Your task to perform on an android device: open app "Venmo" (install if not already installed) and go to login screen Image 0: 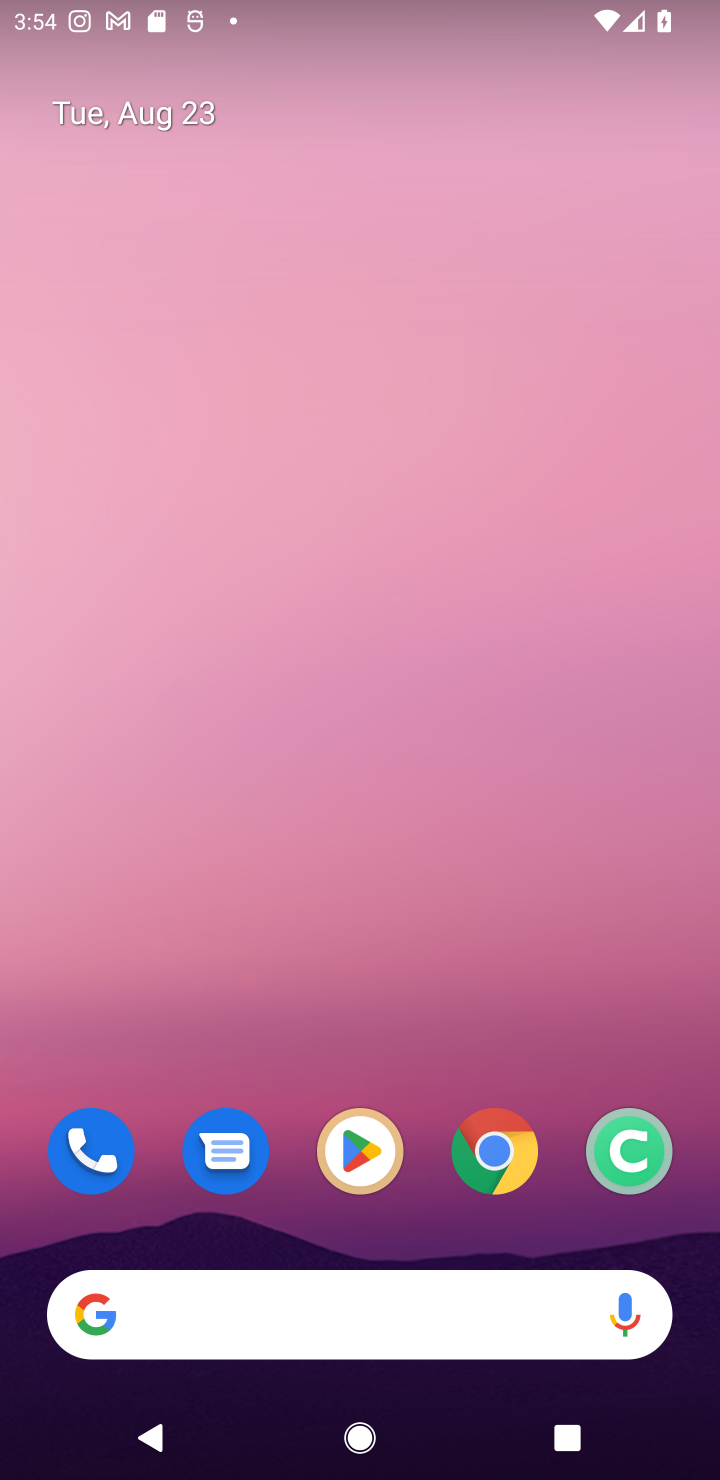
Step 0: press home button
Your task to perform on an android device: open app "Venmo" (install if not already installed) and go to login screen Image 1: 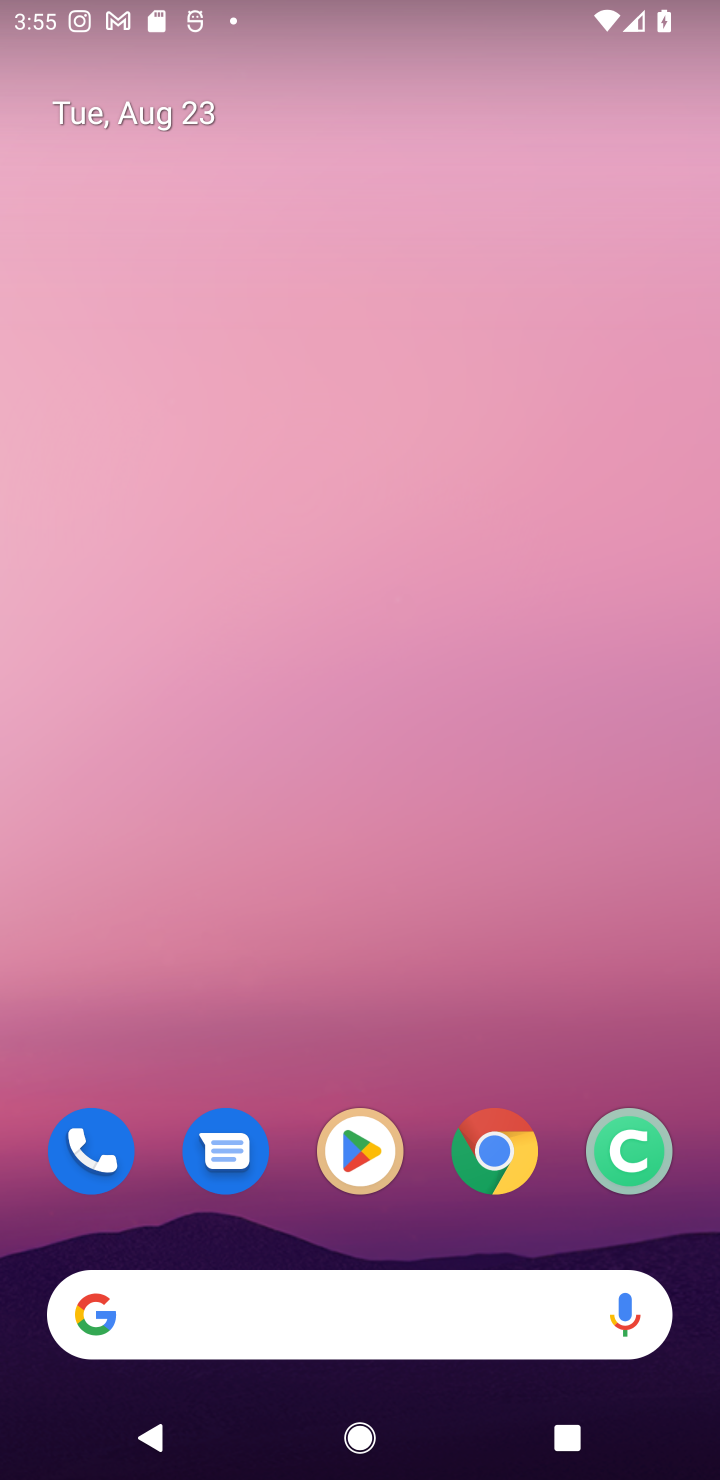
Step 1: click (354, 1163)
Your task to perform on an android device: open app "Venmo" (install if not already installed) and go to login screen Image 2: 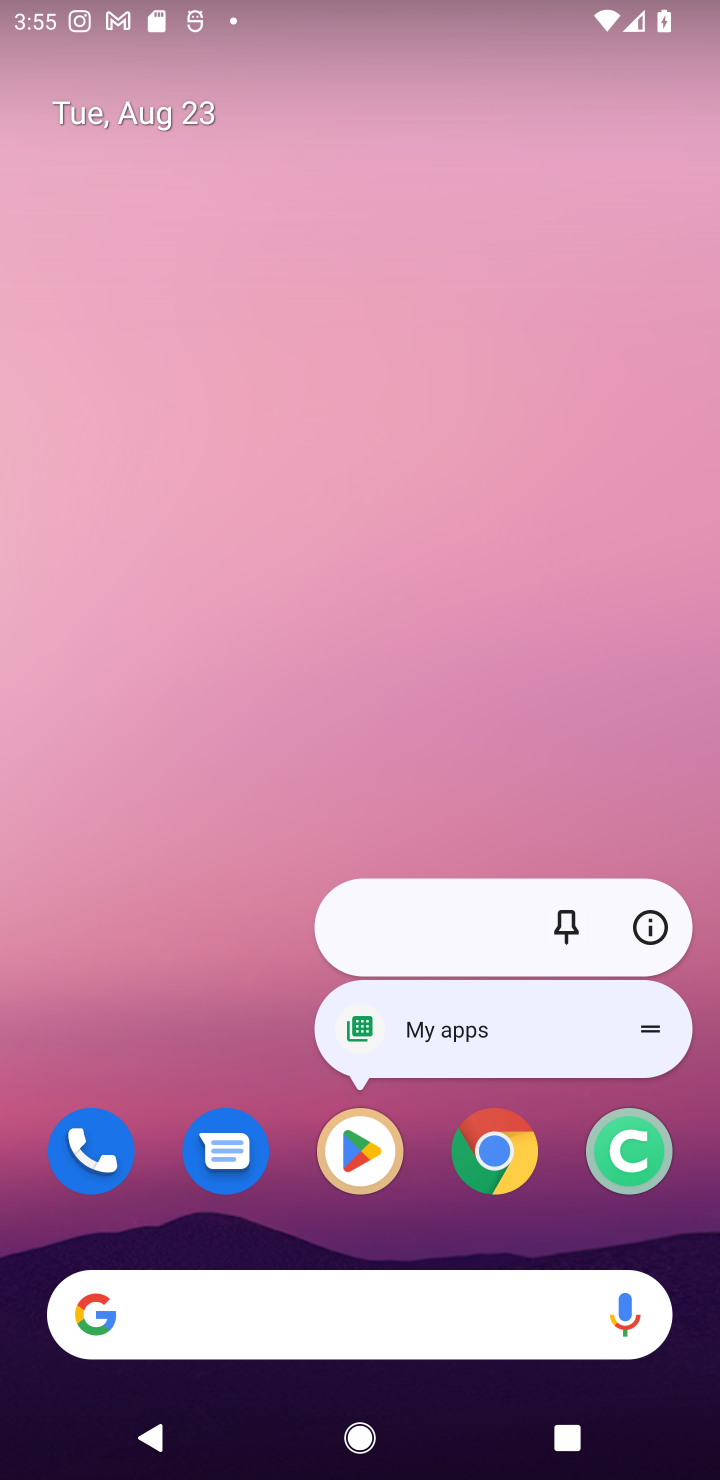
Step 2: click (354, 1170)
Your task to perform on an android device: open app "Venmo" (install if not already installed) and go to login screen Image 3: 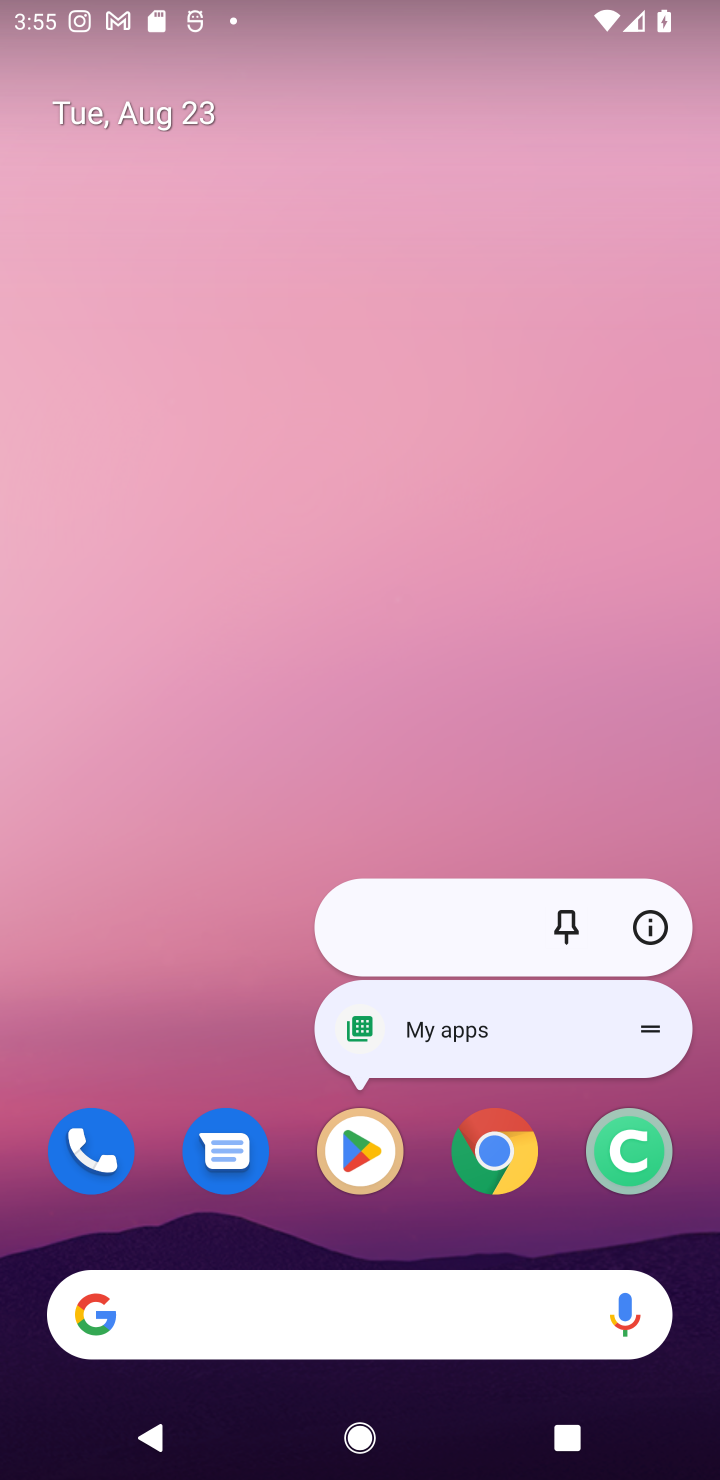
Step 3: click (356, 1153)
Your task to perform on an android device: open app "Venmo" (install if not already installed) and go to login screen Image 4: 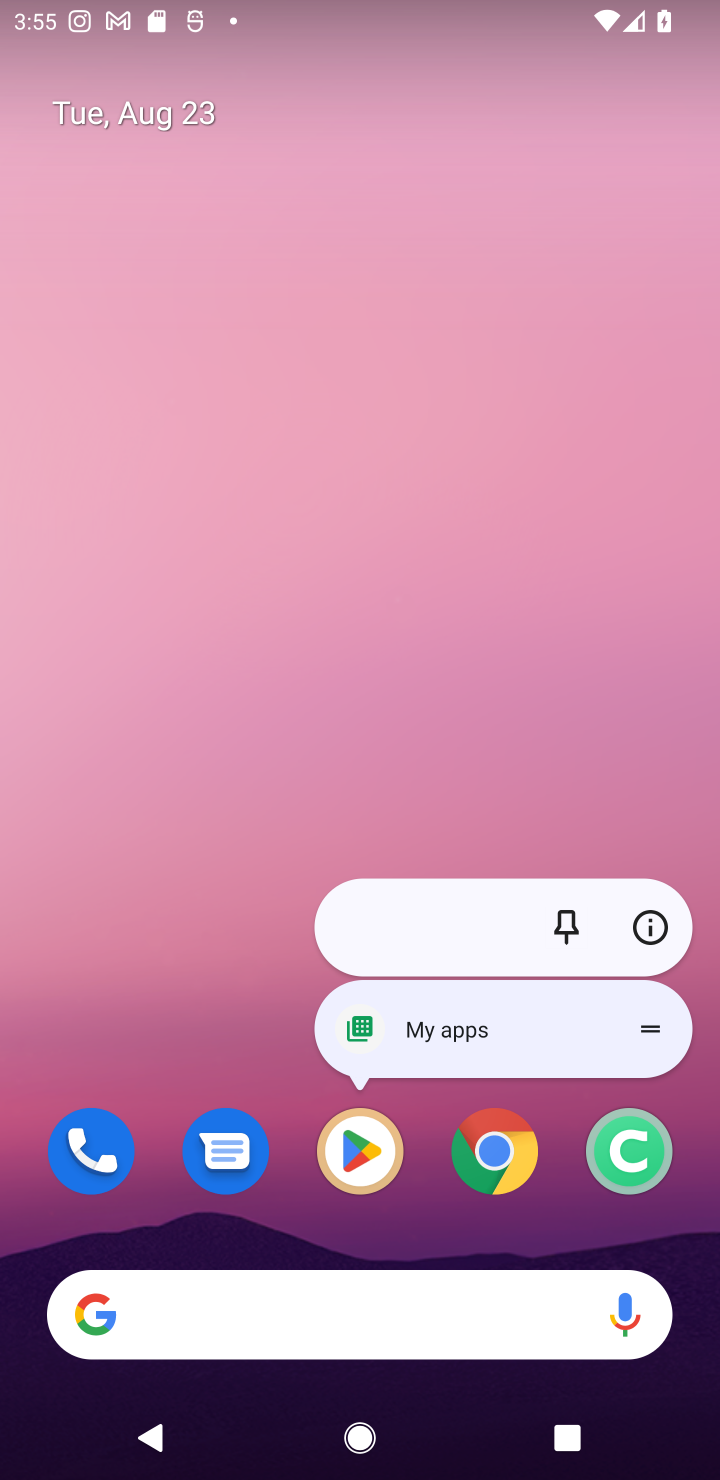
Step 4: click (356, 1157)
Your task to perform on an android device: open app "Venmo" (install if not already installed) and go to login screen Image 5: 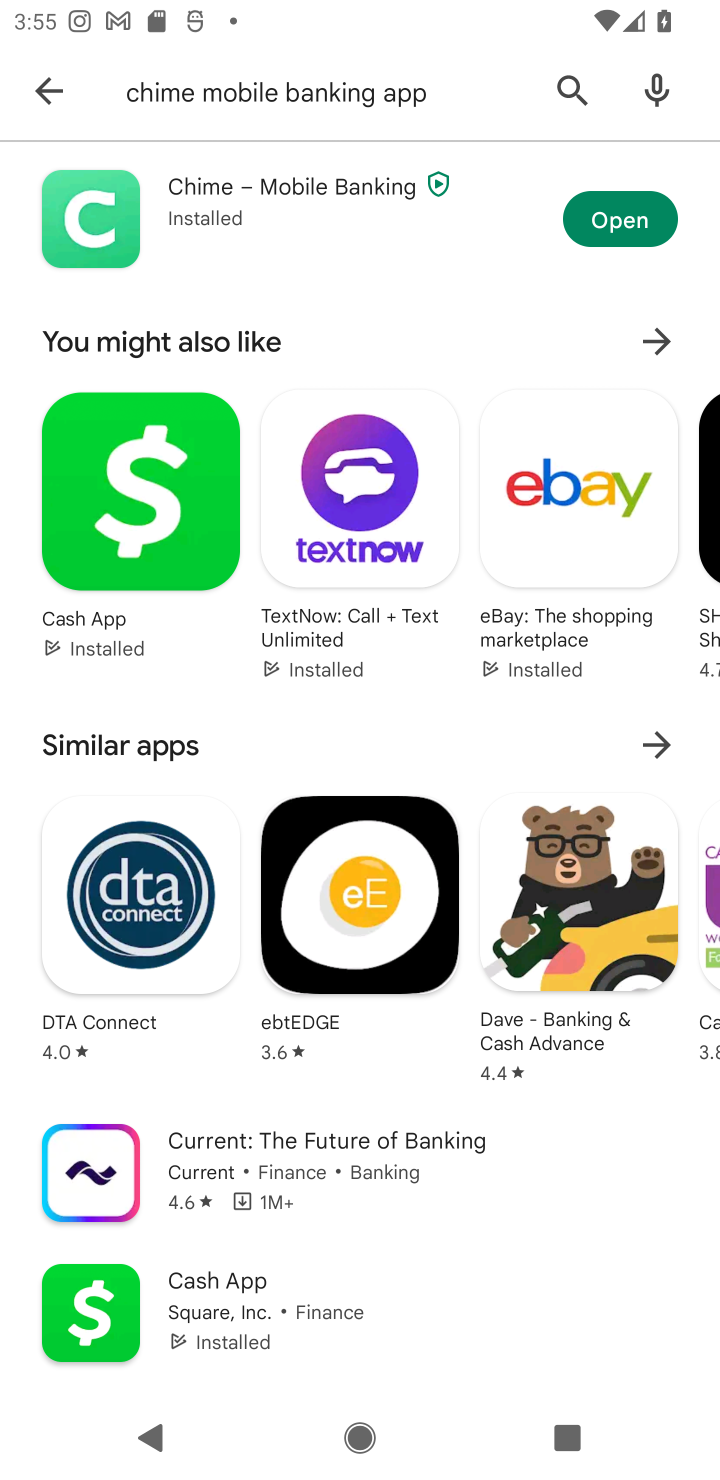
Step 5: click (577, 77)
Your task to perform on an android device: open app "Venmo" (install if not already installed) and go to login screen Image 6: 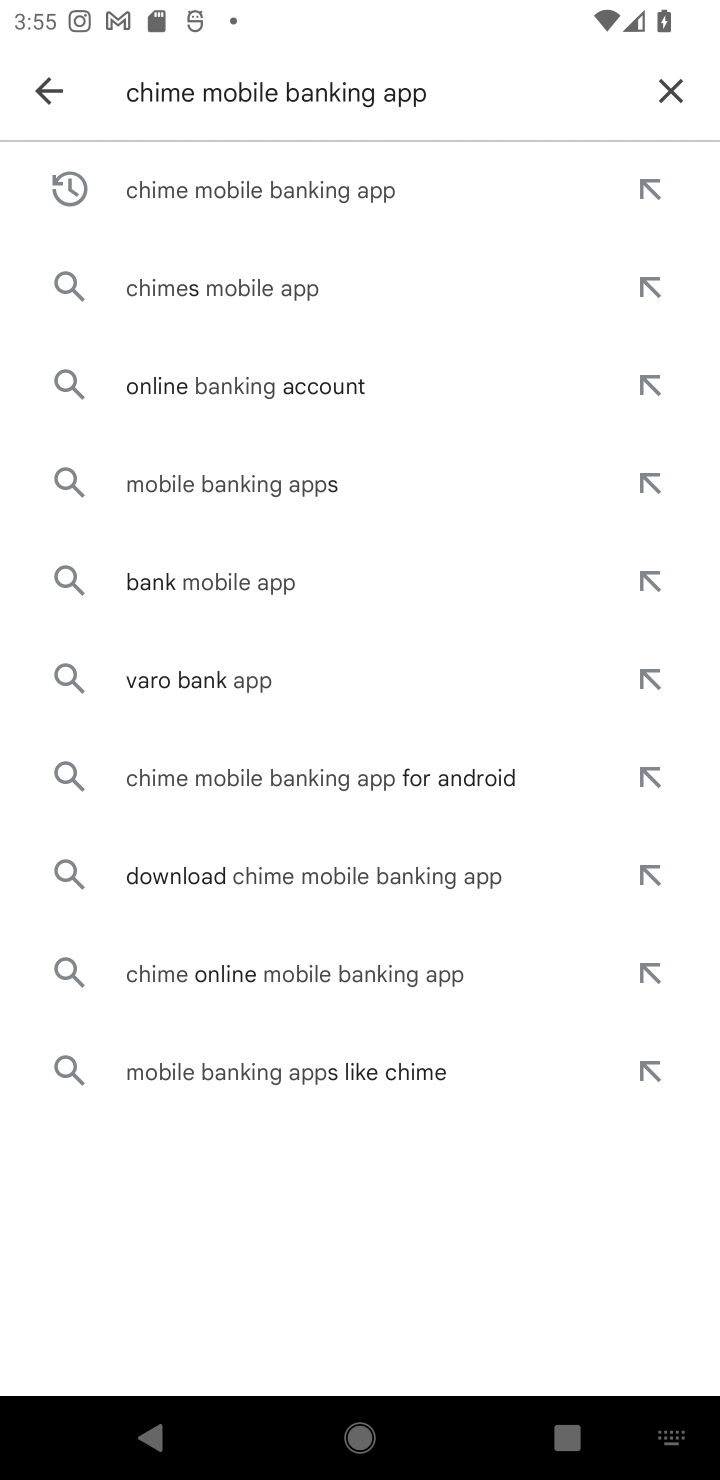
Step 6: click (677, 87)
Your task to perform on an android device: open app "Venmo" (install if not already installed) and go to login screen Image 7: 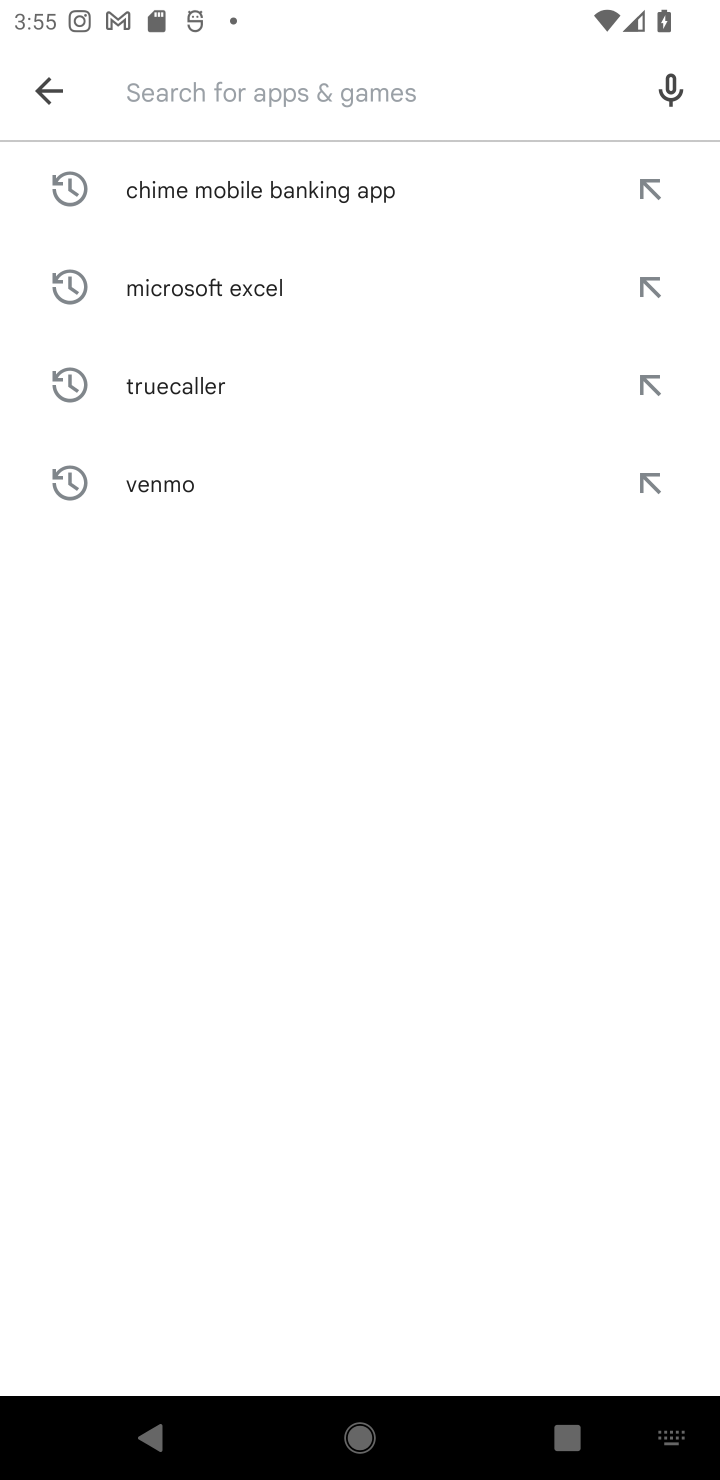
Step 7: type "Venmo"
Your task to perform on an android device: open app "Venmo" (install if not already installed) and go to login screen Image 8: 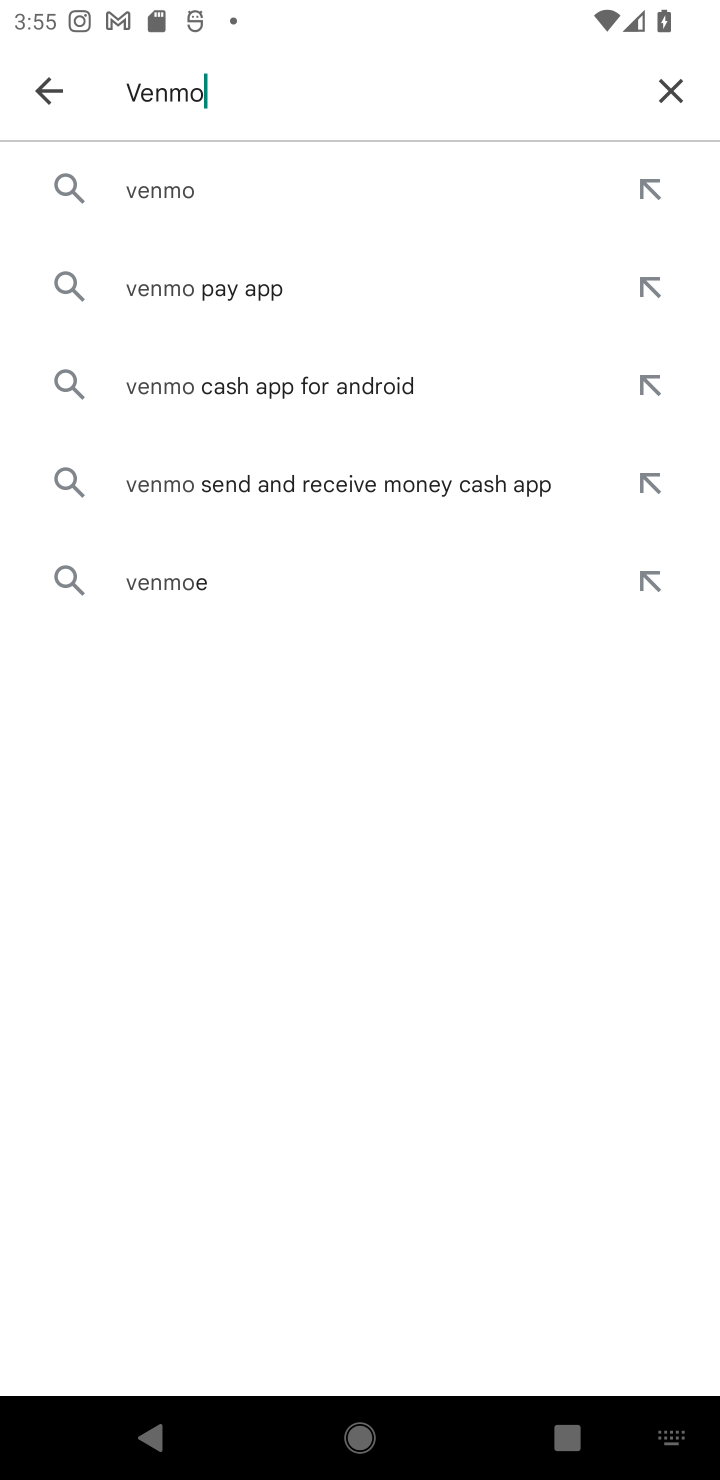
Step 8: click (176, 178)
Your task to perform on an android device: open app "Venmo" (install if not already installed) and go to login screen Image 9: 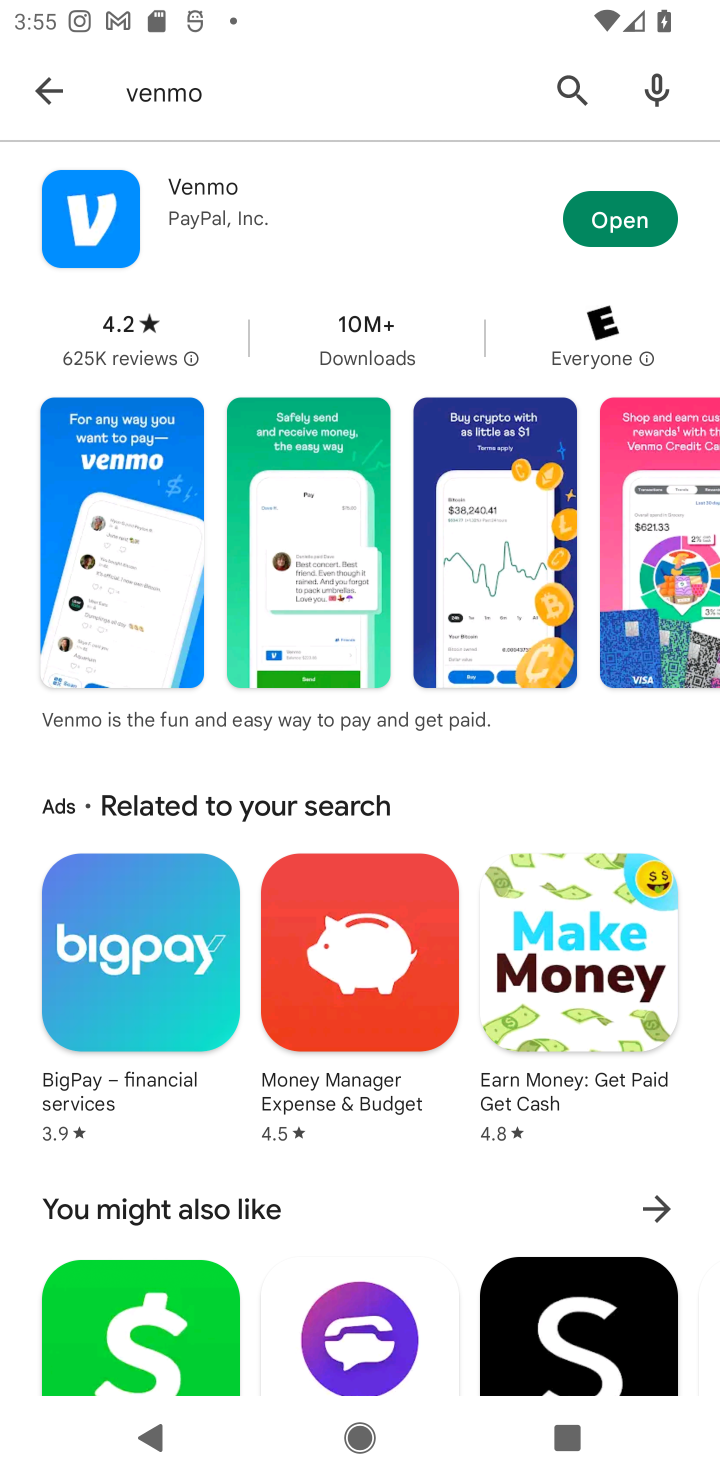
Step 9: click (591, 223)
Your task to perform on an android device: open app "Venmo" (install if not already installed) and go to login screen Image 10: 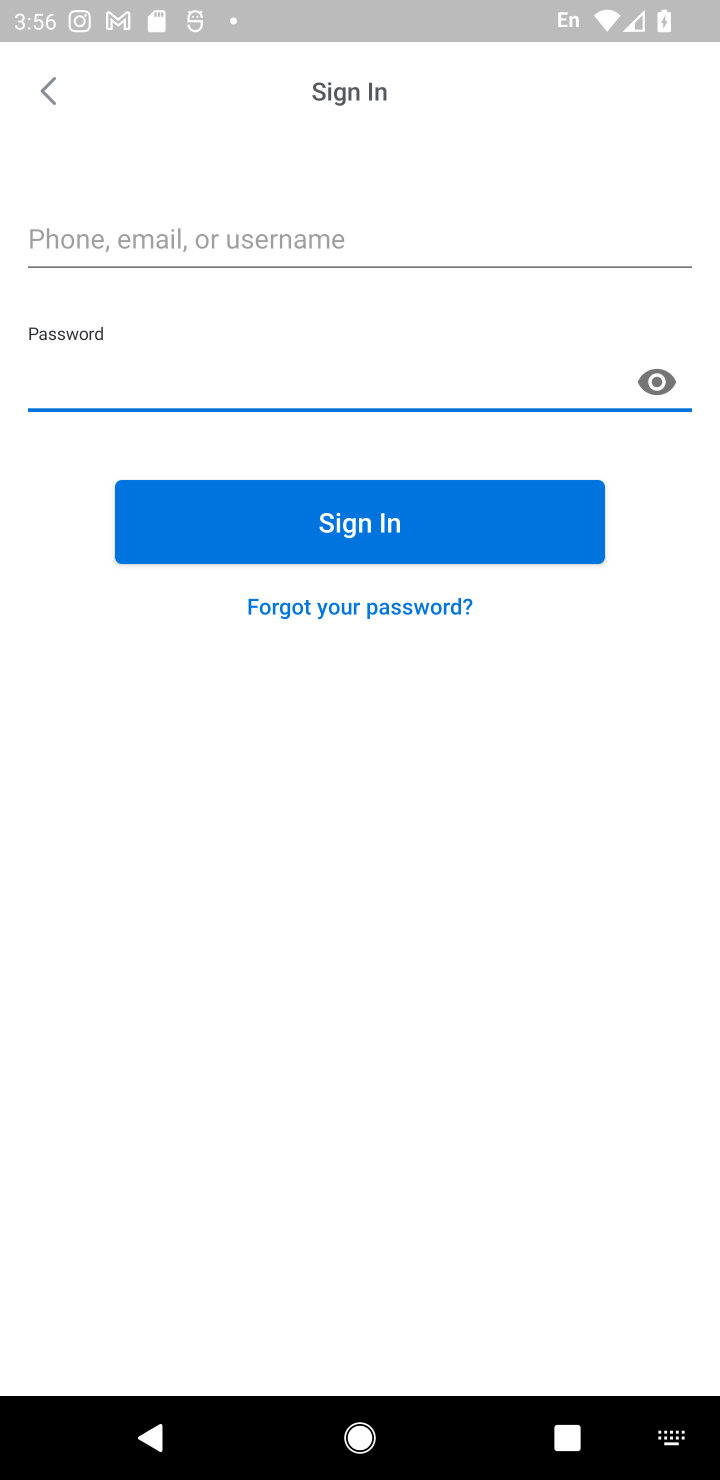
Step 10: task complete